Your task to perform on an android device: delete location history Image 0: 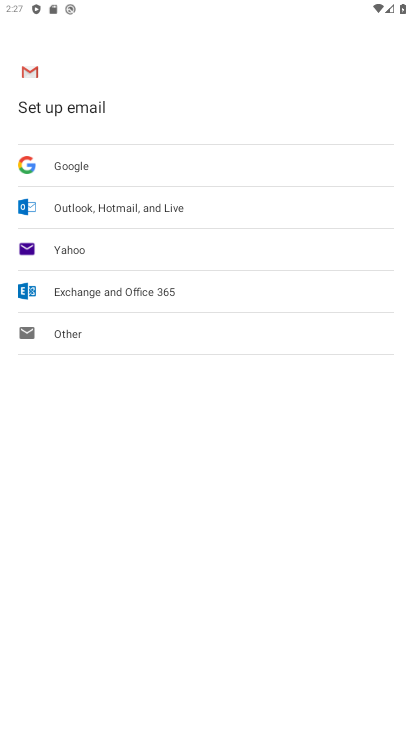
Step 0: press back button
Your task to perform on an android device: delete location history Image 1: 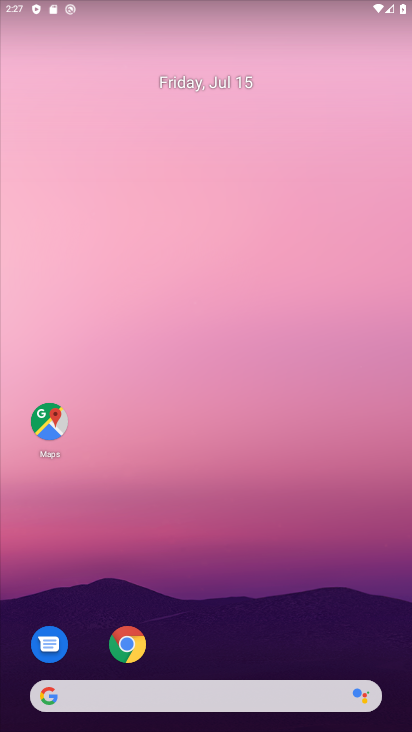
Step 1: click (47, 417)
Your task to perform on an android device: delete location history Image 2: 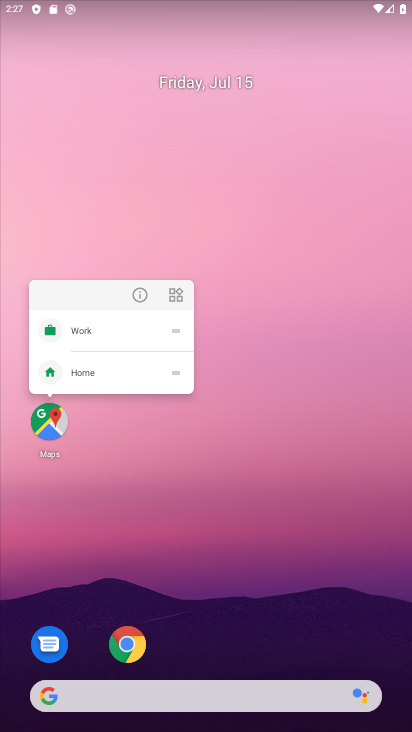
Step 2: click (42, 404)
Your task to perform on an android device: delete location history Image 3: 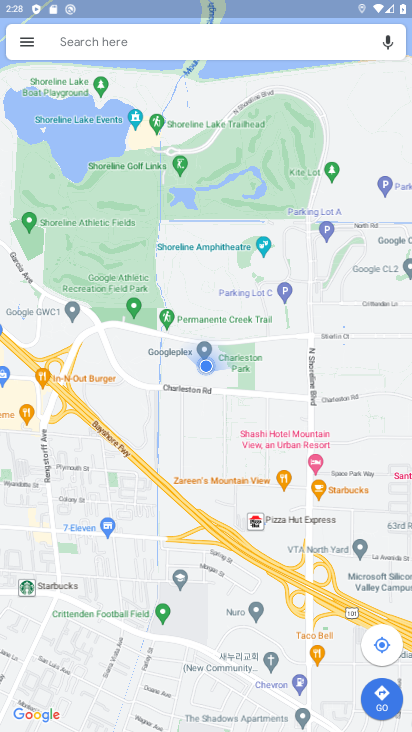
Step 3: click (32, 37)
Your task to perform on an android device: delete location history Image 4: 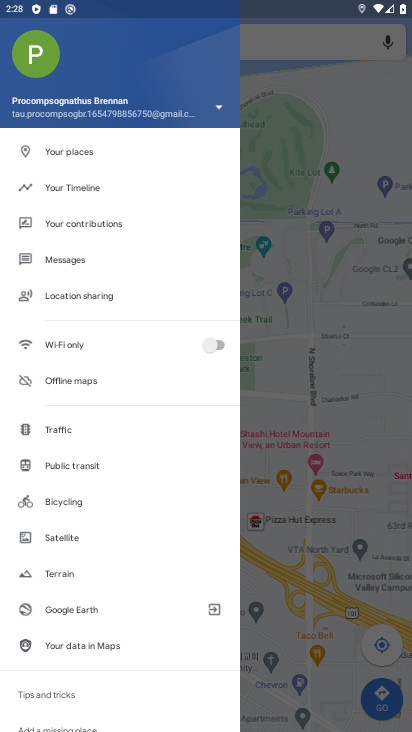
Step 4: click (82, 187)
Your task to perform on an android device: delete location history Image 5: 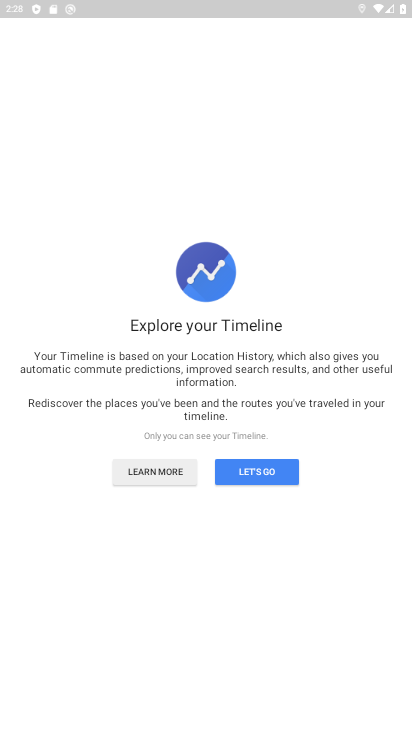
Step 5: click (241, 478)
Your task to perform on an android device: delete location history Image 6: 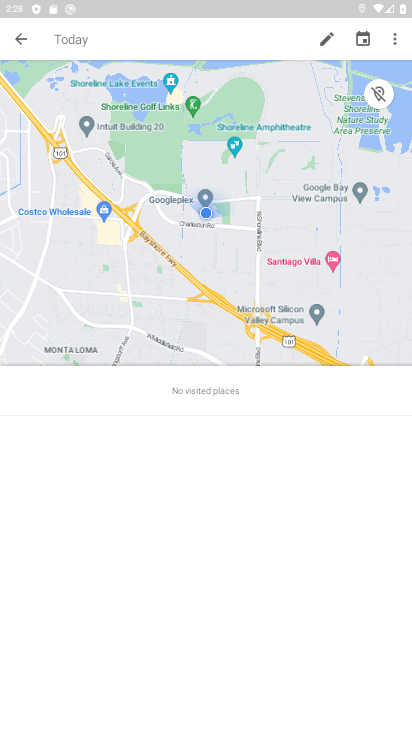
Step 6: click (389, 41)
Your task to perform on an android device: delete location history Image 7: 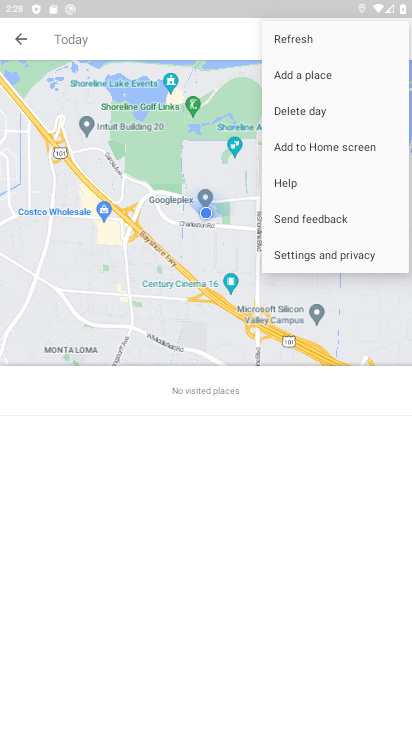
Step 7: click (304, 249)
Your task to perform on an android device: delete location history Image 8: 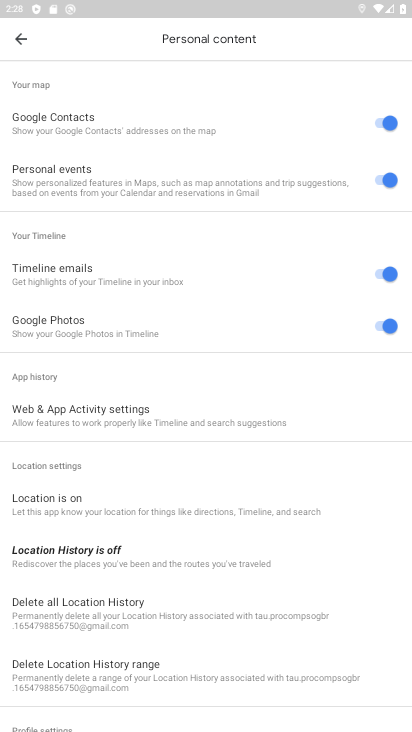
Step 8: click (136, 614)
Your task to perform on an android device: delete location history Image 9: 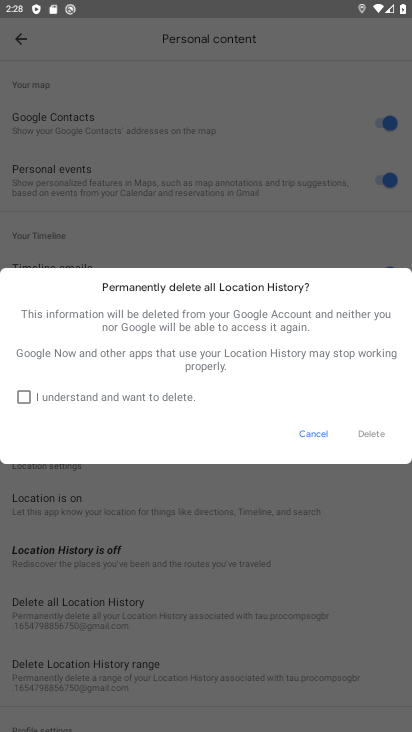
Step 9: click (25, 390)
Your task to perform on an android device: delete location history Image 10: 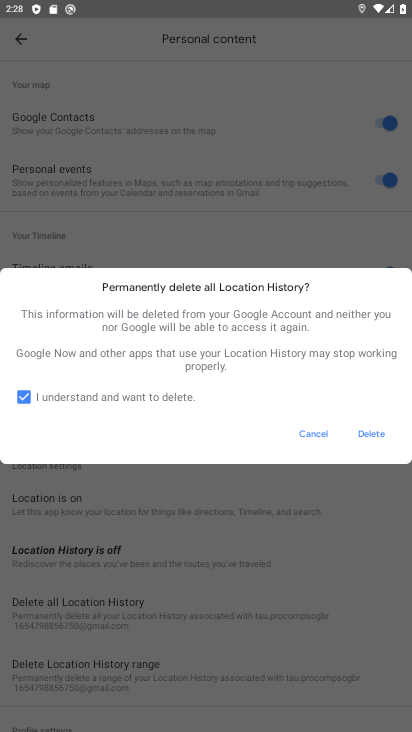
Step 10: click (376, 433)
Your task to perform on an android device: delete location history Image 11: 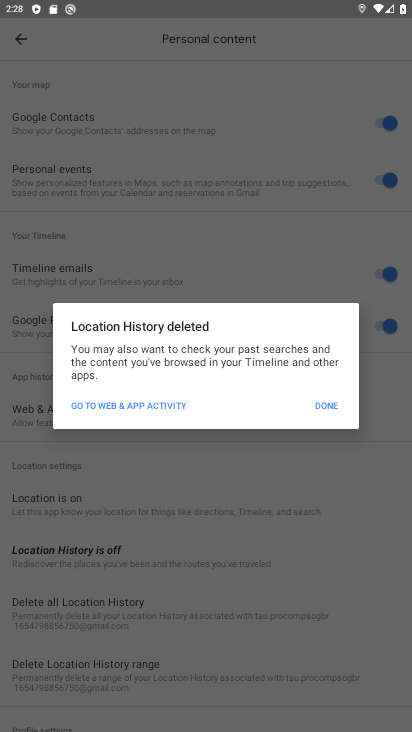
Step 11: click (317, 409)
Your task to perform on an android device: delete location history Image 12: 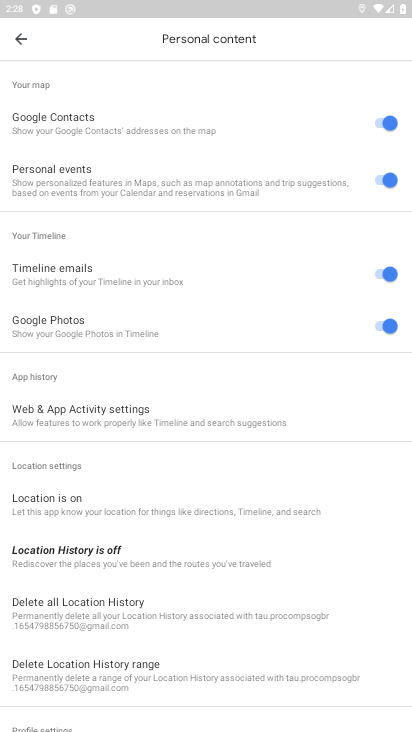
Step 12: task complete